Your task to perform on an android device: change the clock display to digital Image 0: 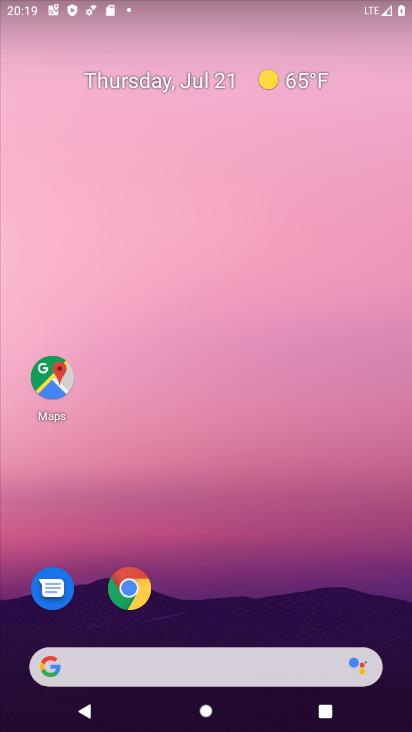
Step 0: drag from (224, 617) to (185, 23)
Your task to perform on an android device: change the clock display to digital Image 1: 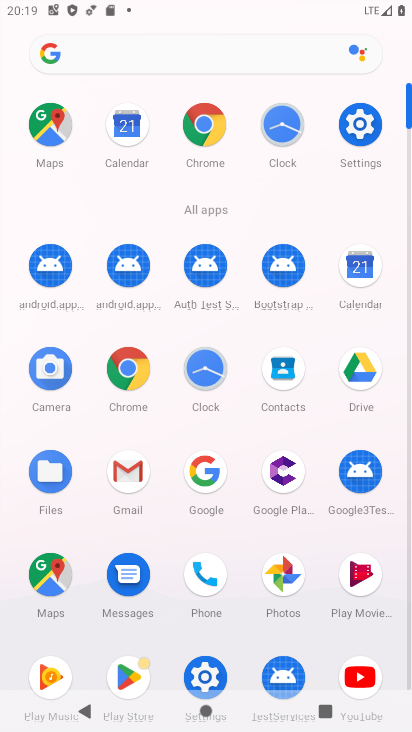
Step 1: click (209, 380)
Your task to perform on an android device: change the clock display to digital Image 2: 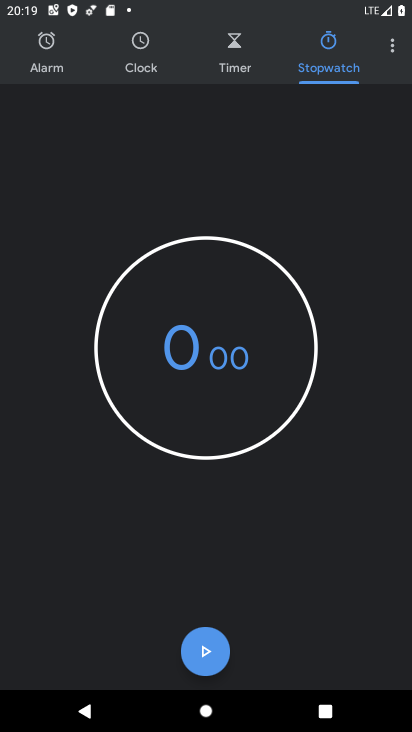
Step 2: click (392, 53)
Your task to perform on an android device: change the clock display to digital Image 3: 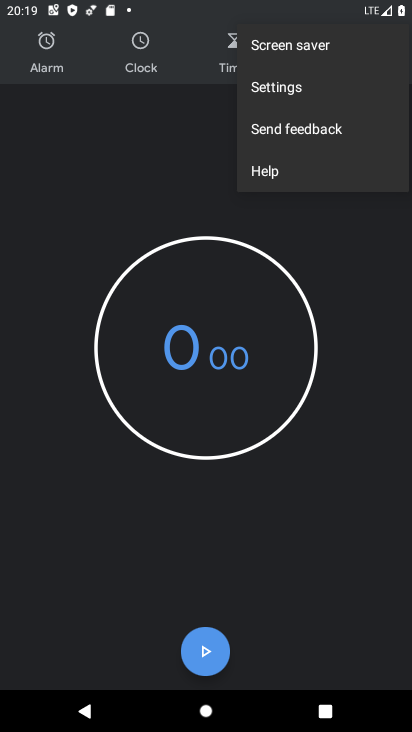
Step 3: click (296, 87)
Your task to perform on an android device: change the clock display to digital Image 4: 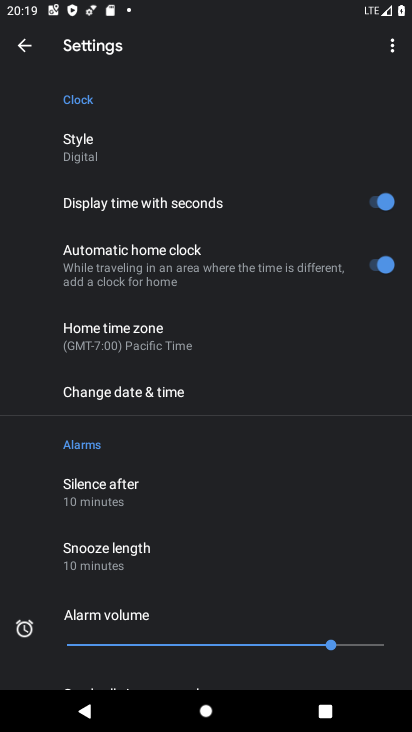
Step 4: click (80, 147)
Your task to perform on an android device: change the clock display to digital Image 5: 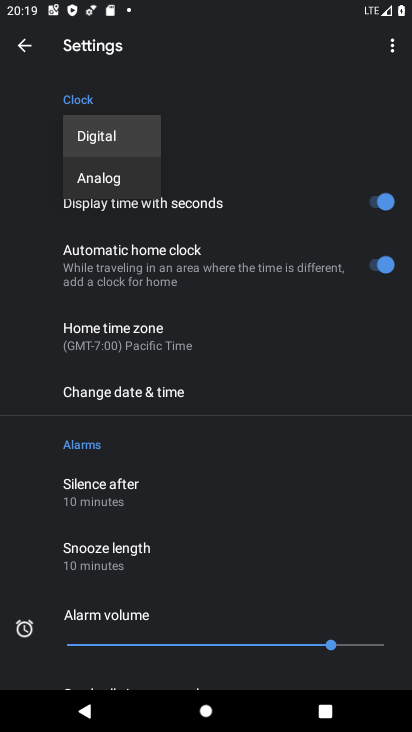
Step 5: click (119, 135)
Your task to perform on an android device: change the clock display to digital Image 6: 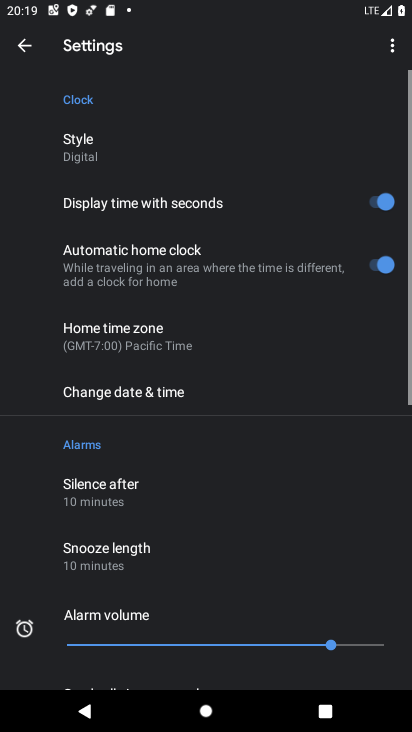
Step 6: task complete